Your task to perform on an android device: delete a single message in the gmail app Image 0: 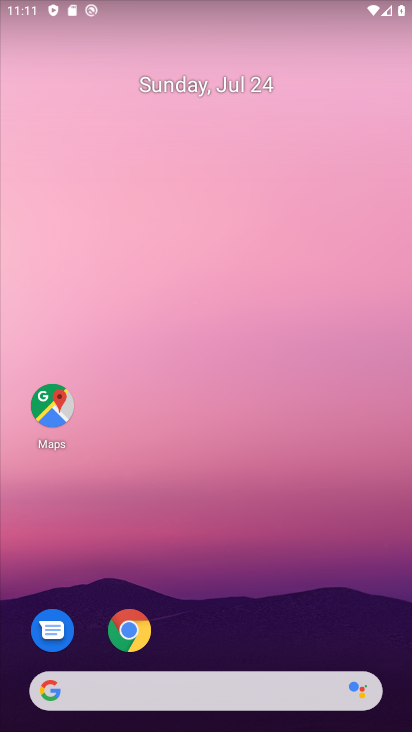
Step 0: drag from (286, 611) to (202, 190)
Your task to perform on an android device: delete a single message in the gmail app Image 1: 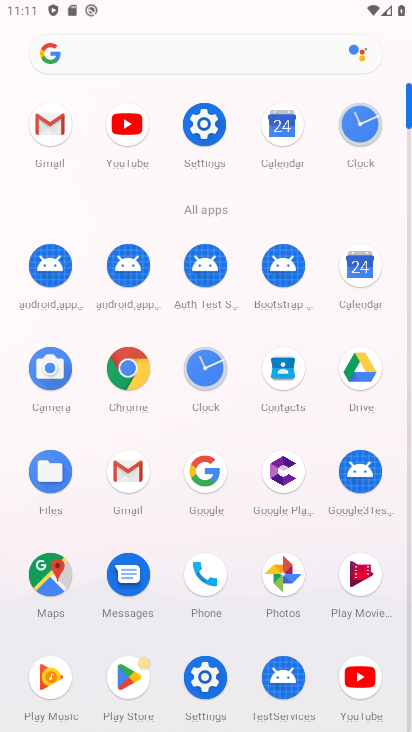
Step 1: click (118, 467)
Your task to perform on an android device: delete a single message in the gmail app Image 2: 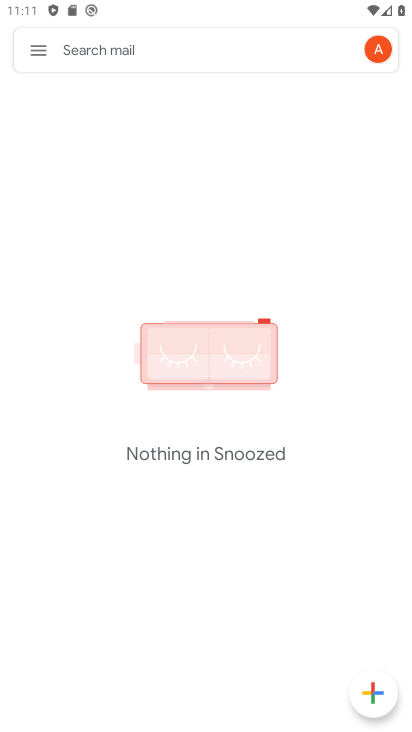
Step 2: click (41, 44)
Your task to perform on an android device: delete a single message in the gmail app Image 3: 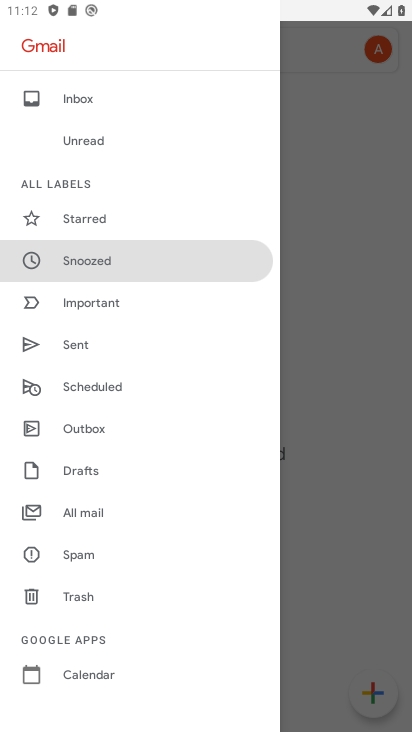
Step 3: click (85, 506)
Your task to perform on an android device: delete a single message in the gmail app Image 4: 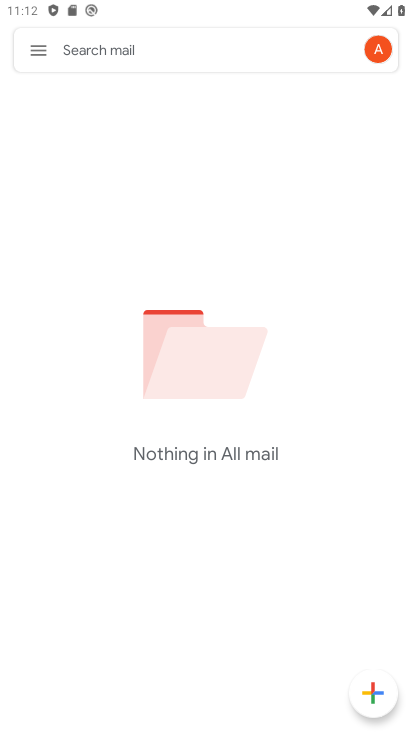
Step 4: task complete